Your task to perform on an android device: Open Youtube and go to "Your channel" Image 0: 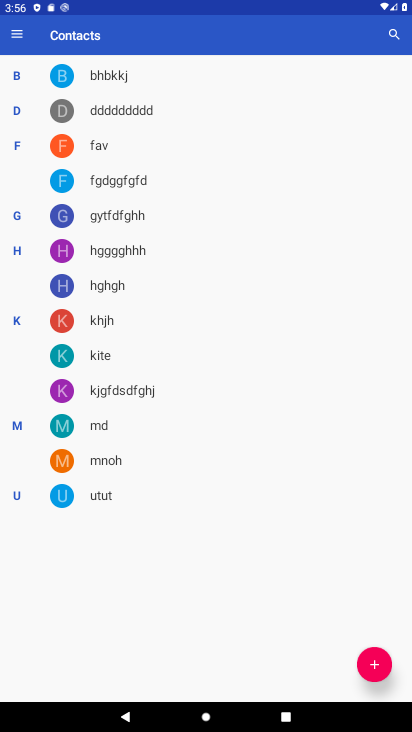
Step 0: press home button
Your task to perform on an android device: Open Youtube and go to "Your channel" Image 1: 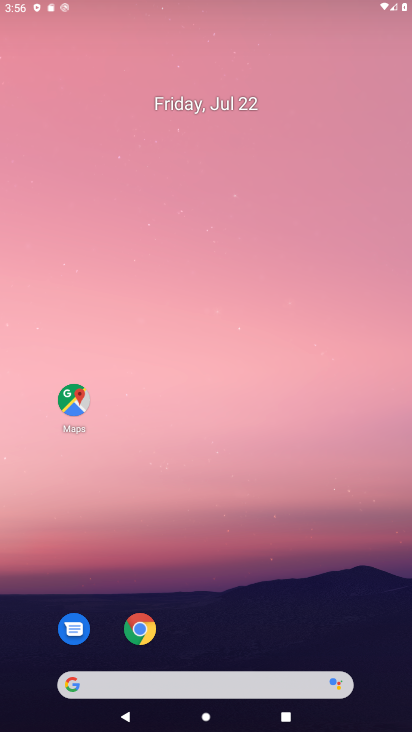
Step 1: drag from (250, 368) to (257, 46)
Your task to perform on an android device: Open Youtube and go to "Your channel" Image 2: 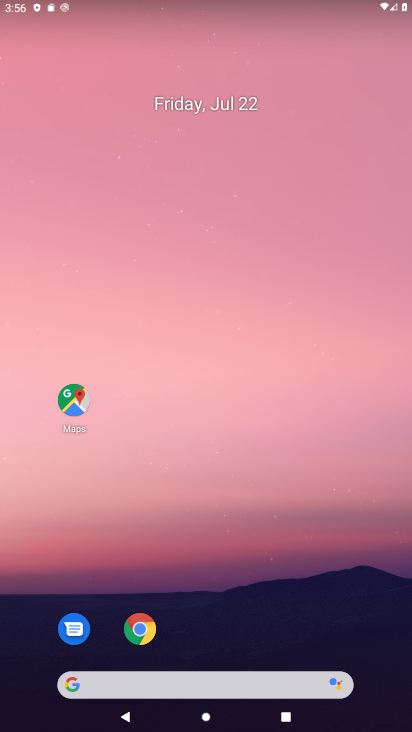
Step 2: drag from (313, 587) to (272, 117)
Your task to perform on an android device: Open Youtube and go to "Your channel" Image 3: 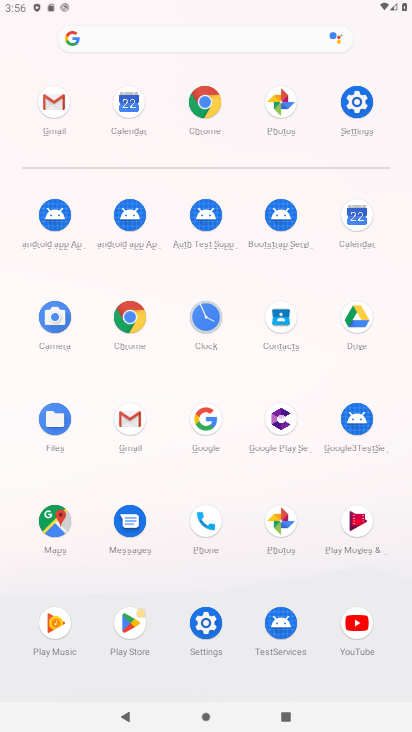
Step 3: click (360, 620)
Your task to perform on an android device: Open Youtube and go to "Your channel" Image 4: 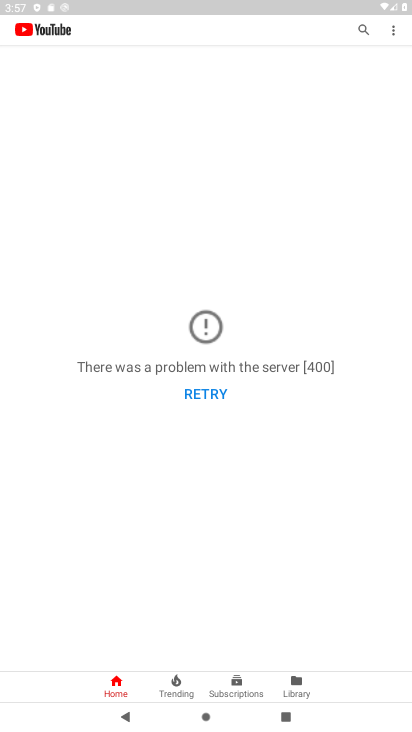
Step 4: task complete